Your task to perform on an android device: set the timer Image 0: 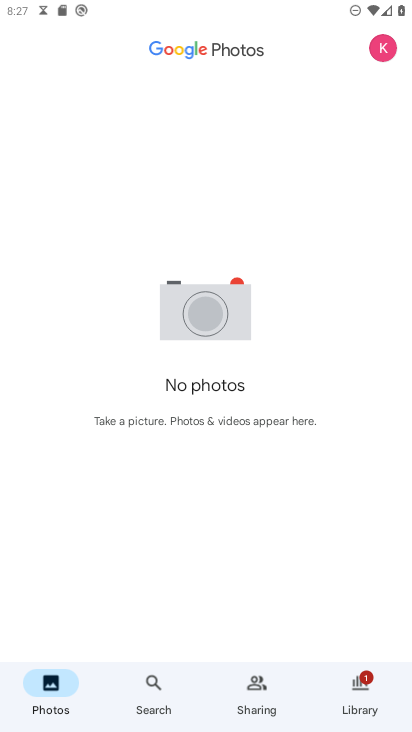
Step 0: press home button
Your task to perform on an android device: set the timer Image 1: 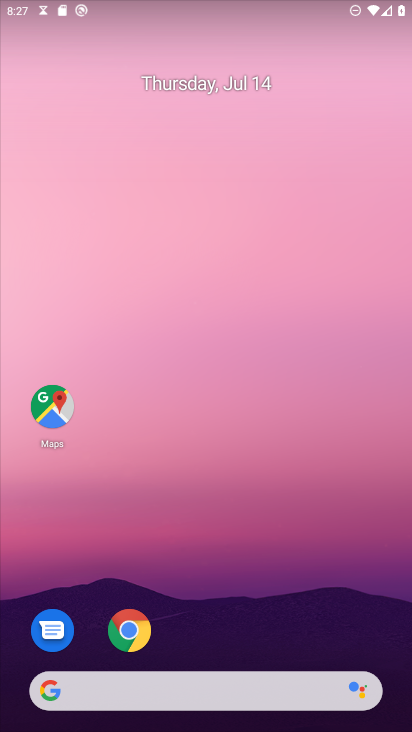
Step 1: drag from (243, 568) to (243, 178)
Your task to perform on an android device: set the timer Image 2: 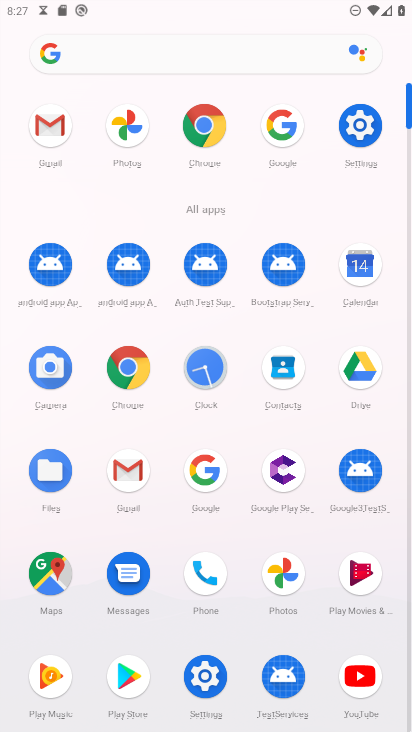
Step 2: click (206, 379)
Your task to perform on an android device: set the timer Image 3: 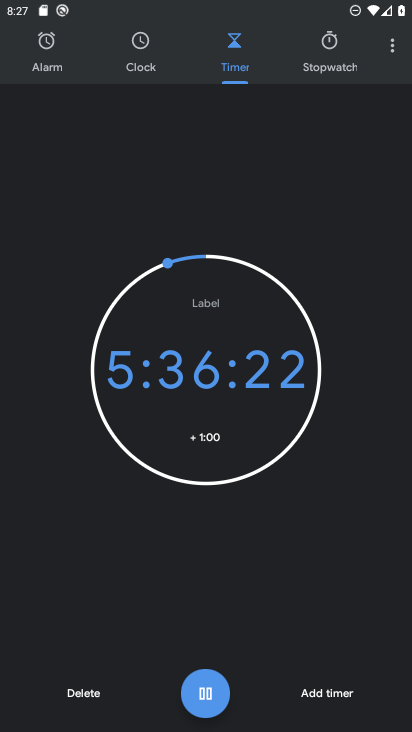
Step 3: task complete